Your task to perform on an android device: toggle notifications settings in the gmail app Image 0: 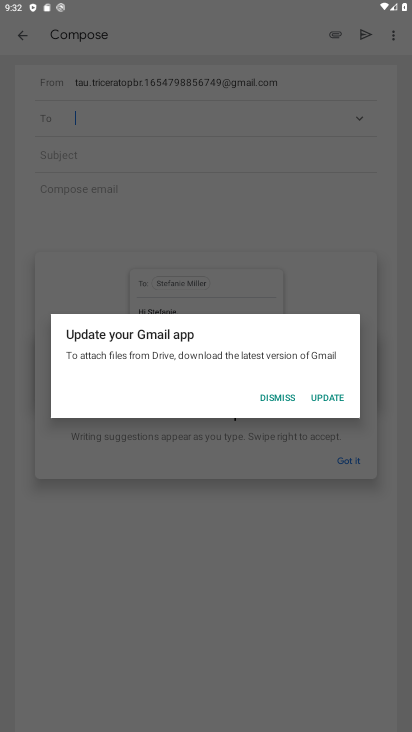
Step 0: press home button
Your task to perform on an android device: toggle notifications settings in the gmail app Image 1: 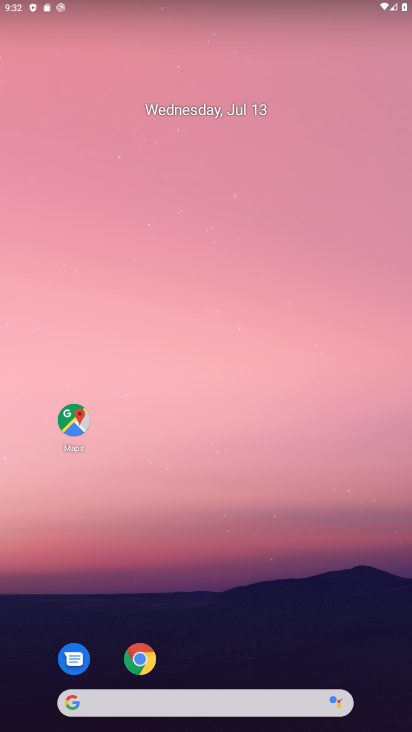
Step 1: drag from (282, 591) to (267, 70)
Your task to perform on an android device: toggle notifications settings in the gmail app Image 2: 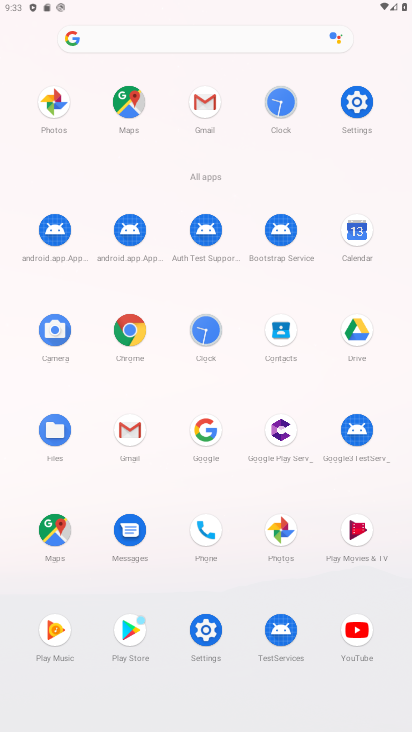
Step 2: click (198, 97)
Your task to perform on an android device: toggle notifications settings in the gmail app Image 3: 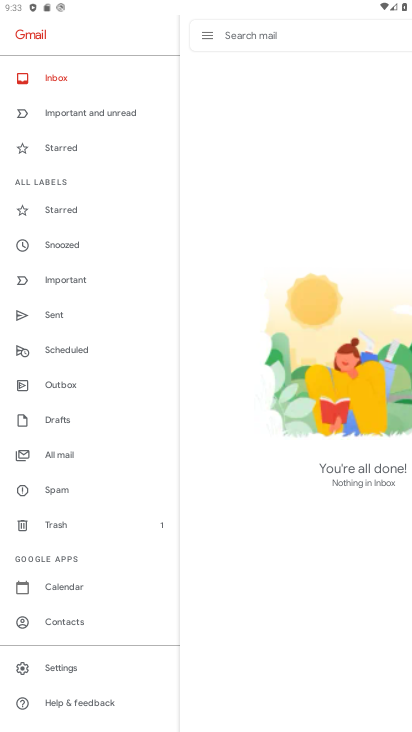
Step 3: click (75, 668)
Your task to perform on an android device: toggle notifications settings in the gmail app Image 4: 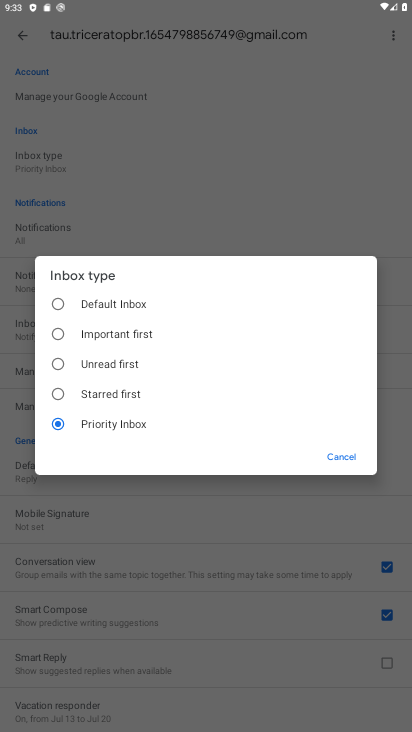
Step 4: press home button
Your task to perform on an android device: toggle notifications settings in the gmail app Image 5: 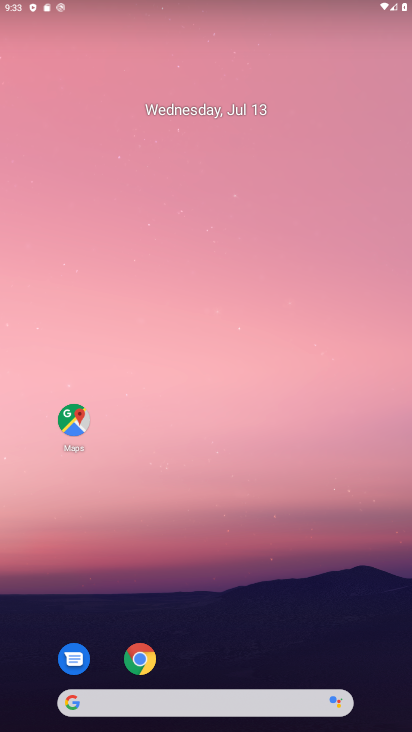
Step 5: drag from (335, 620) to (186, 20)
Your task to perform on an android device: toggle notifications settings in the gmail app Image 6: 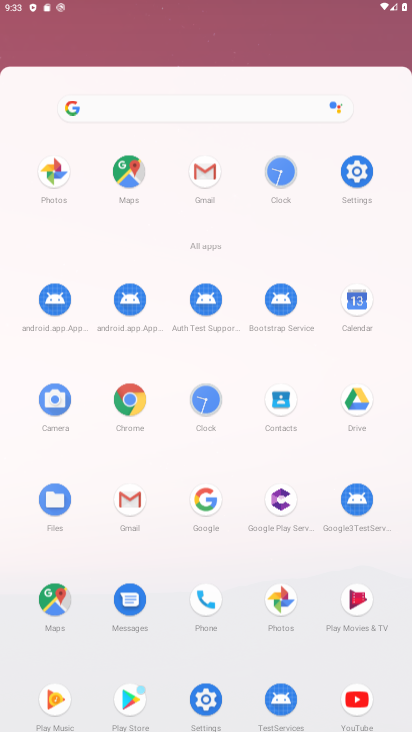
Step 6: click (199, 163)
Your task to perform on an android device: toggle notifications settings in the gmail app Image 7: 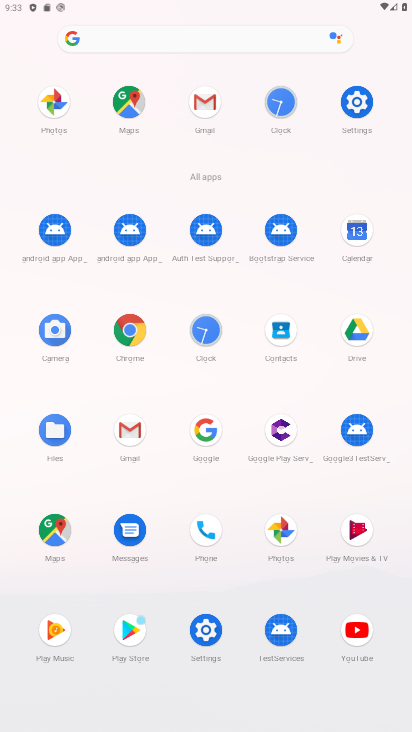
Step 7: click (204, 101)
Your task to perform on an android device: toggle notifications settings in the gmail app Image 8: 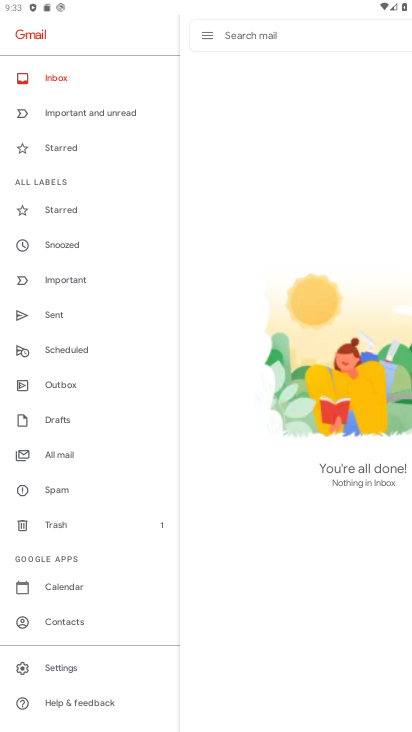
Step 8: click (72, 669)
Your task to perform on an android device: toggle notifications settings in the gmail app Image 9: 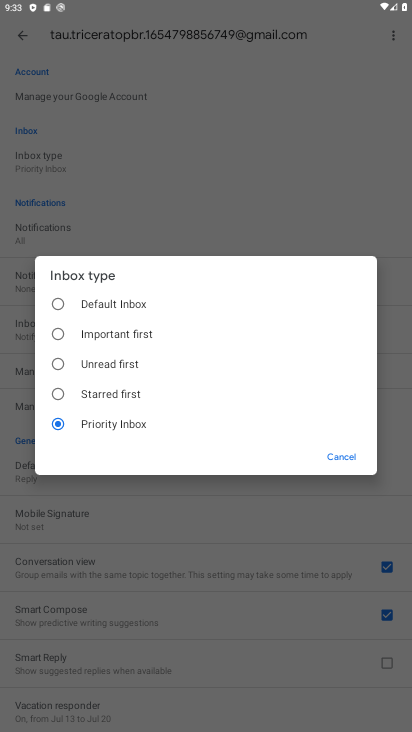
Step 9: click (344, 455)
Your task to perform on an android device: toggle notifications settings in the gmail app Image 10: 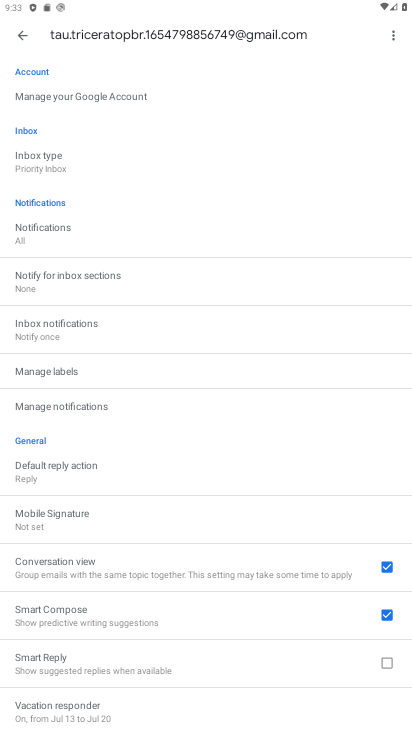
Step 10: click (35, 404)
Your task to perform on an android device: toggle notifications settings in the gmail app Image 11: 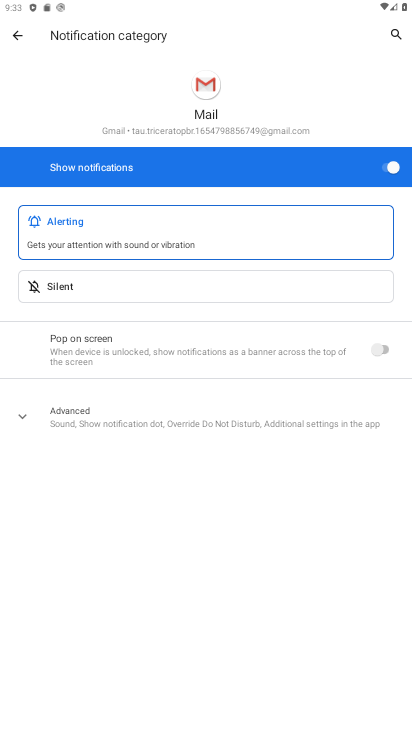
Step 11: click (385, 152)
Your task to perform on an android device: toggle notifications settings in the gmail app Image 12: 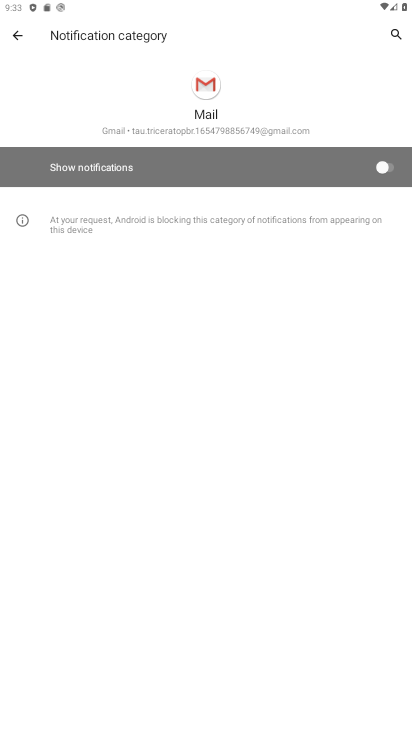
Step 12: task complete